Your task to perform on an android device: Open Youtube and go to "Your channel" Image 0: 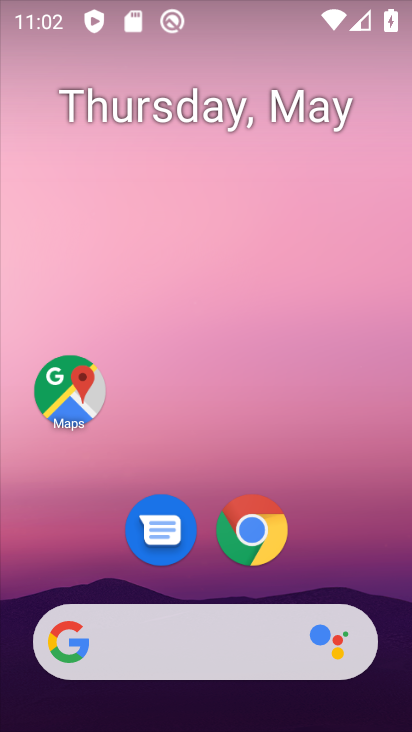
Step 0: drag from (310, 688) to (226, 187)
Your task to perform on an android device: Open Youtube and go to "Your channel" Image 1: 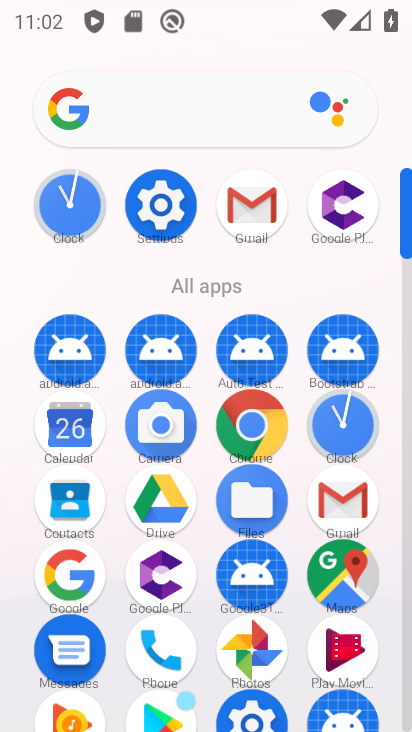
Step 1: drag from (302, 636) to (213, 280)
Your task to perform on an android device: Open Youtube and go to "Your channel" Image 2: 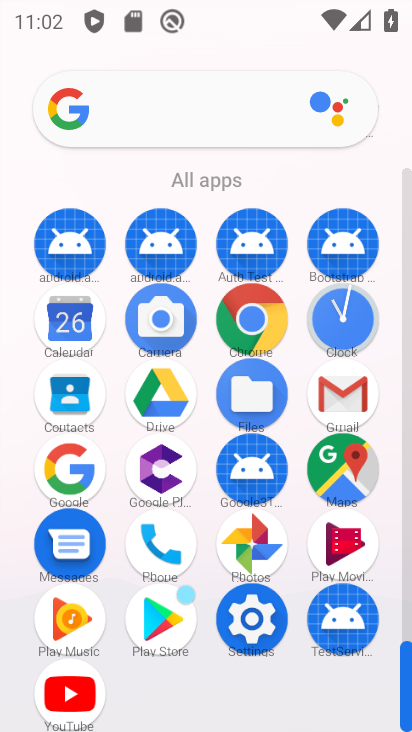
Step 2: click (68, 698)
Your task to perform on an android device: Open Youtube and go to "Your channel" Image 3: 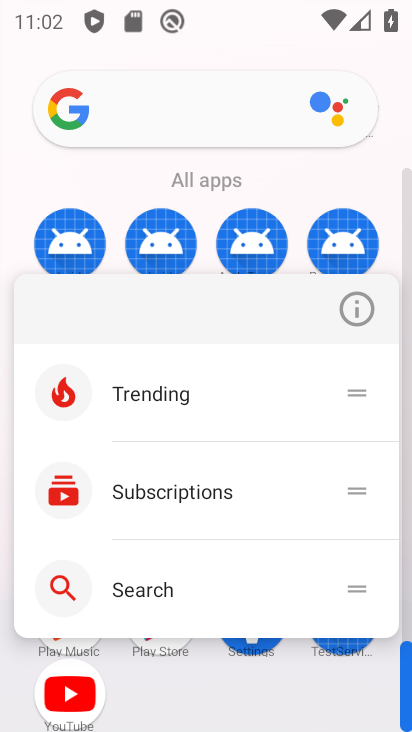
Step 3: click (52, 680)
Your task to perform on an android device: Open Youtube and go to "Your channel" Image 4: 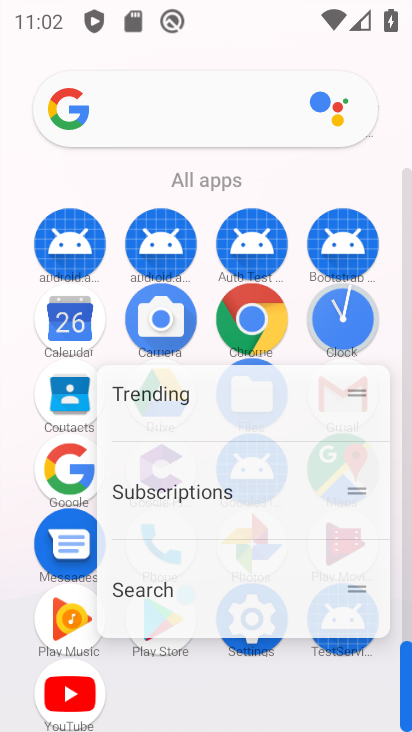
Step 4: click (53, 680)
Your task to perform on an android device: Open Youtube and go to "Your channel" Image 5: 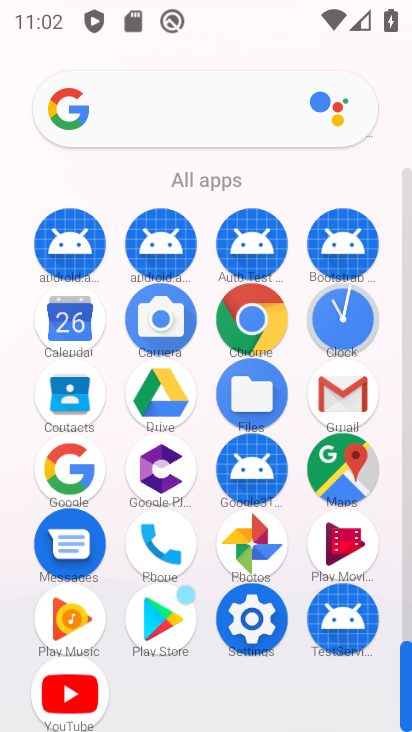
Step 5: click (57, 683)
Your task to perform on an android device: Open Youtube and go to "Your channel" Image 6: 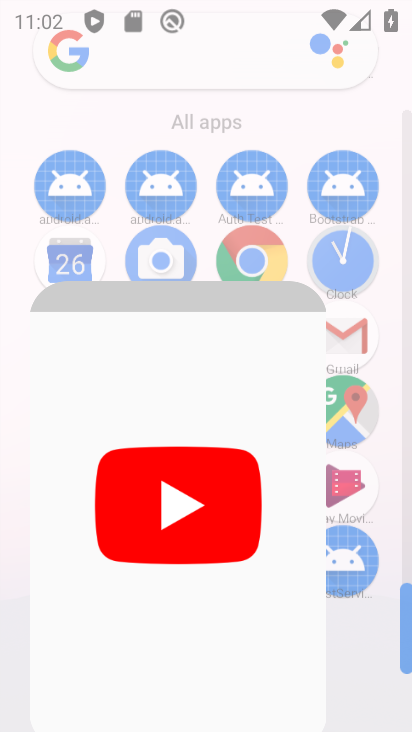
Step 6: click (59, 684)
Your task to perform on an android device: Open Youtube and go to "Your channel" Image 7: 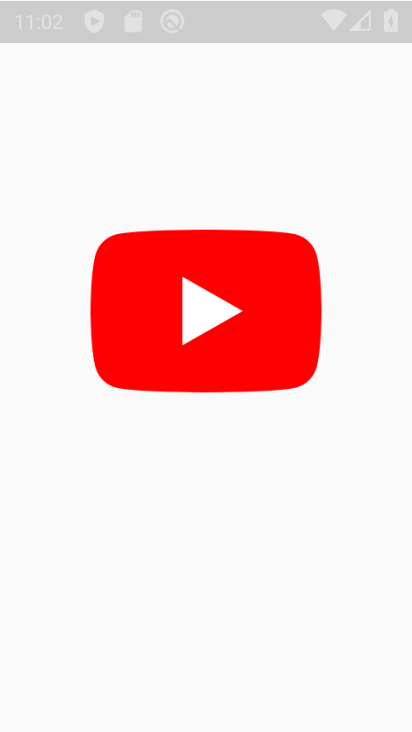
Step 7: click (64, 689)
Your task to perform on an android device: Open Youtube and go to "Your channel" Image 8: 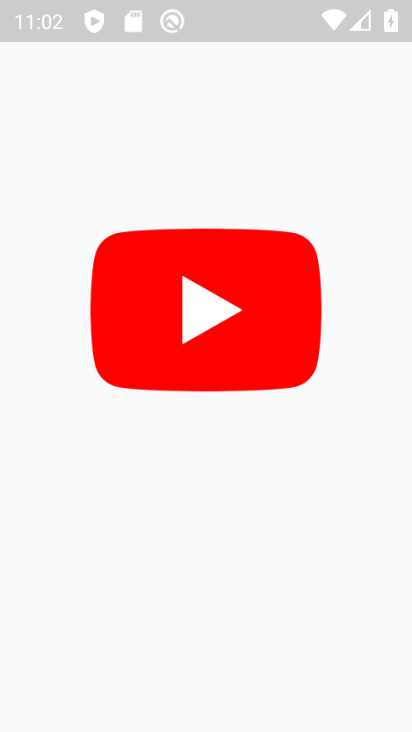
Step 8: click (65, 689)
Your task to perform on an android device: Open Youtube and go to "Your channel" Image 9: 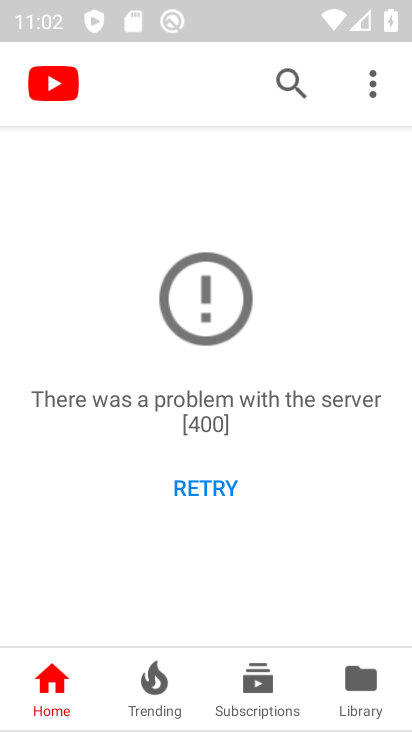
Step 9: drag from (223, 439) to (226, 208)
Your task to perform on an android device: Open Youtube and go to "Your channel" Image 10: 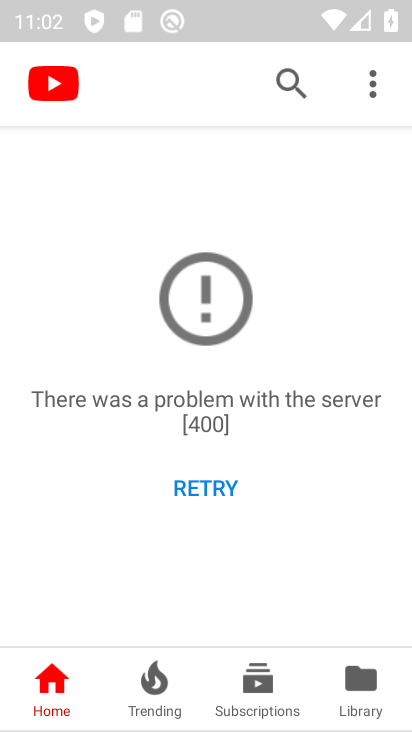
Step 10: drag from (230, 412) to (223, 177)
Your task to perform on an android device: Open Youtube and go to "Your channel" Image 11: 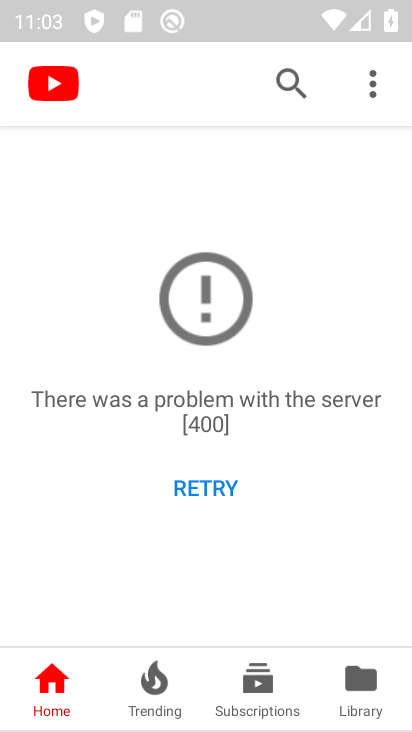
Step 11: drag from (234, 412) to (197, 239)
Your task to perform on an android device: Open Youtube and go to "Your channel" Image 12: 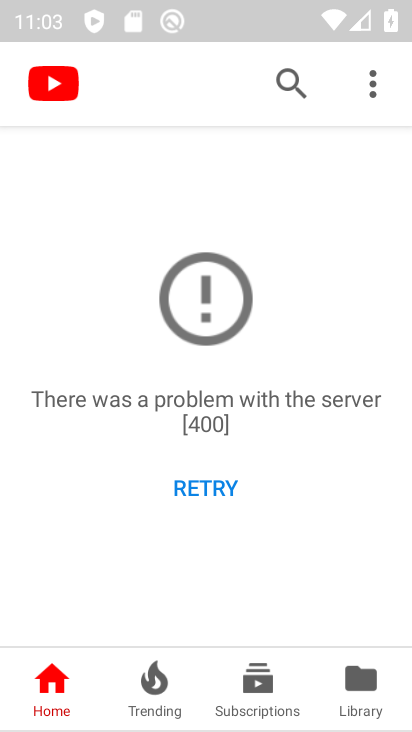
Step 12: drag from (172, 497) to (209, 239)
Your task to perform on an android device: Open Youtube and go to "Your channel" Image 13: 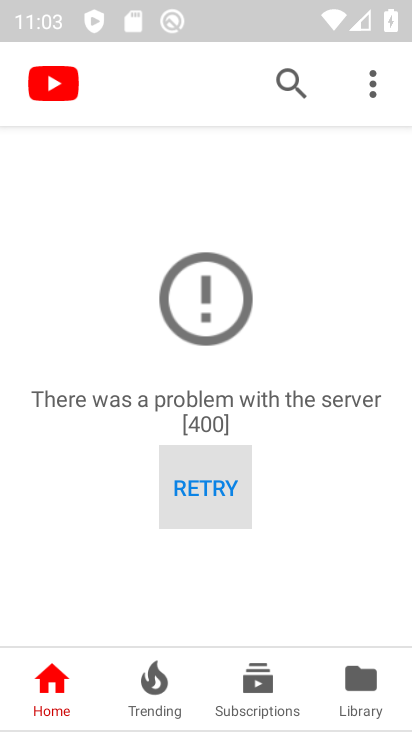
Step 13: drag from (179, 317) to (187, 180)
Your task to perform on an android device: Open Youtube and go to "Your channel" Image 14: 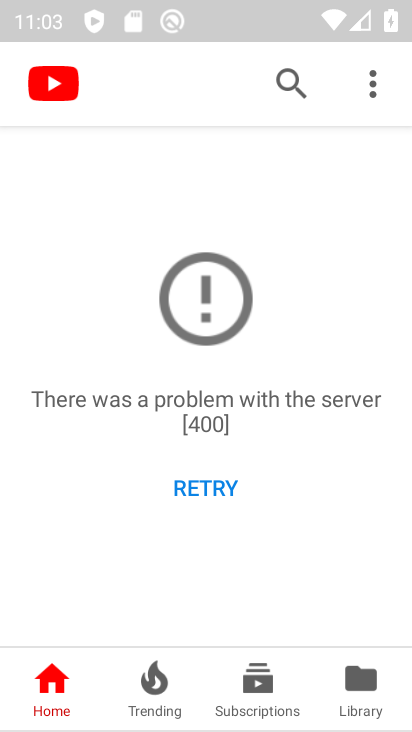
Step 14: drag from (224, 356) to (226, 100)
Your task to perform on an android device: Open Youtube and go to "Your channel" Image 15: 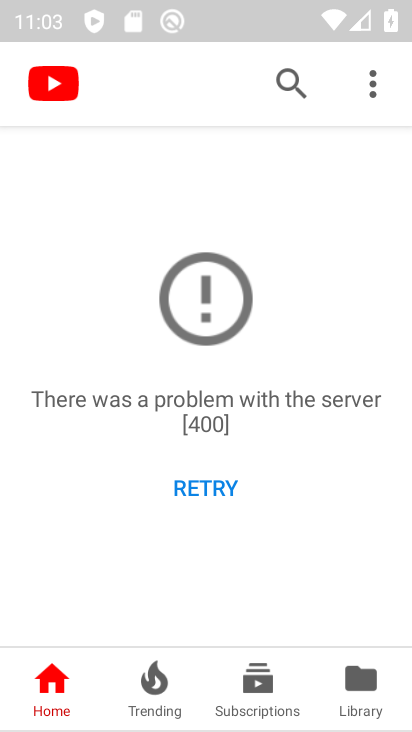
Step 15: drag from (231, 371) to (263, 71)
Your task to perform on an android device: Open Youtube and go to "Your channel" Image 16: 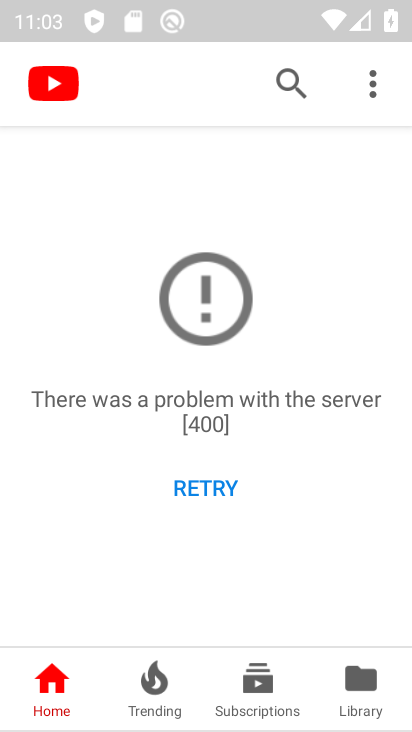
Step 16: drag from (226, 473) to (224, 171)
Your task to perform on an android device: Open Youtube and go to "Your channel" Image 17: 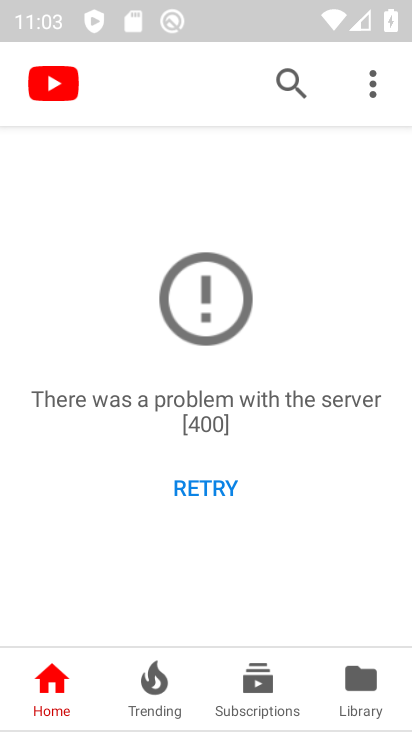
Step 17: drag from (200, 355) to (233, 237)
Your task to perform on an android device: Open Youtube and go to "Your channel" Image 18: 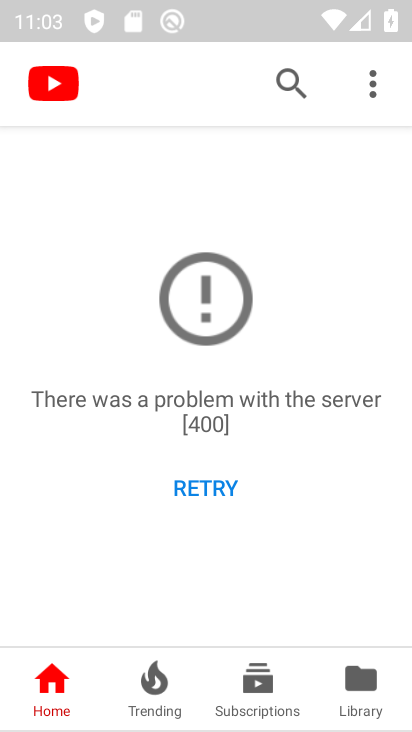
Step 18: drag from (193, 399) to (199, 151)
Your task to perform on an android device: Open Youtube and go to "Your channel" Image 19: 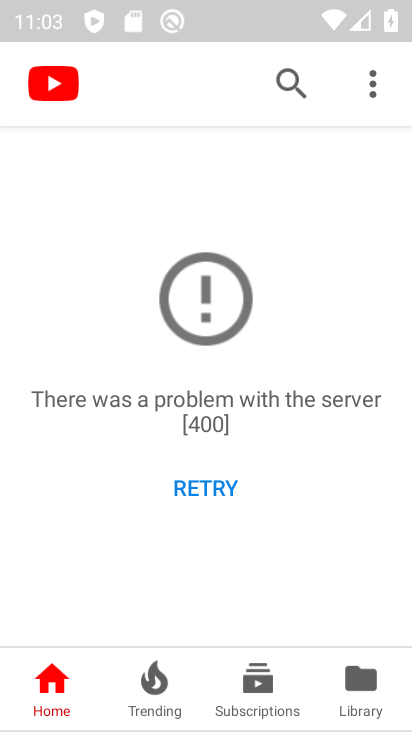
Step 19: drag from (197, 310) to (180, 208)
Your task to perform on an android device: Open Youtube and go to "Your channel" Image 20: 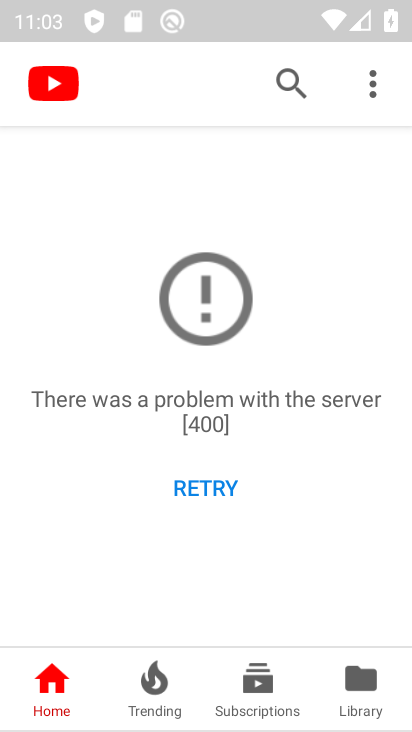
Step 20: drag from (181, 358) to (170, 198)
Your task to perform on an android device: Open Youtube and go to "Your channel" Image 21: 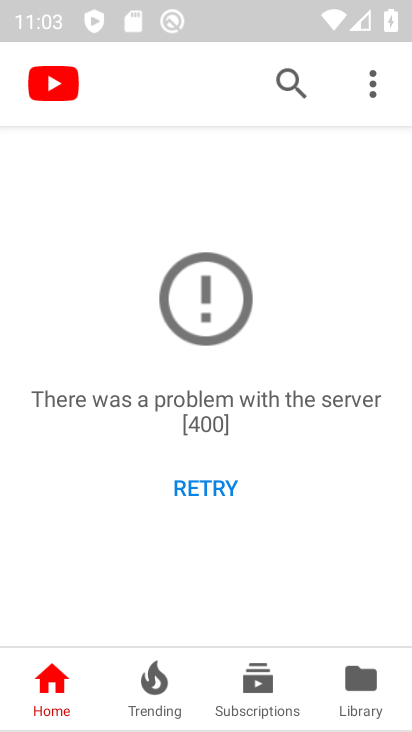
Step 21: drag from (207, 313) to (197, 228)
Your task to perform on an android device: Open Youtube and go to "Your channel" Image 22: 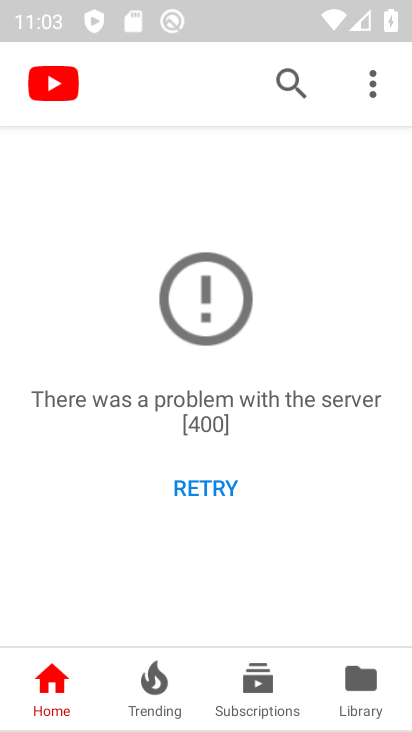
Step 22: drag from (210, 349) to (210, 216)
Your task to perform on an android device: Open Youtube and go to "Your channel" Image 23: 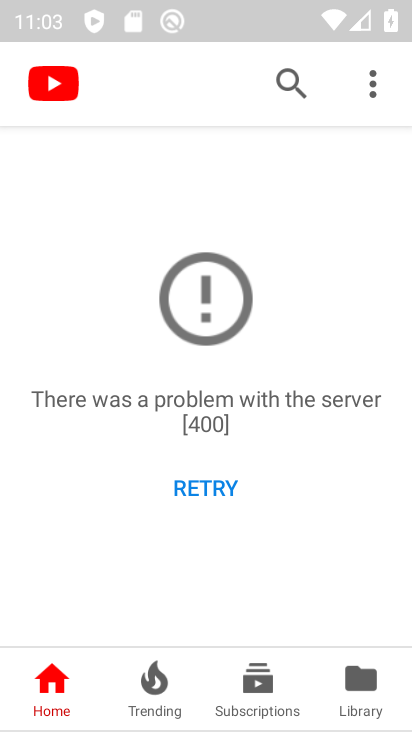
Step 23: drag from (213, 401) to (205, 249)
Your task to perform on an android device: Open Youtube and go to "Your channel" Image 24: 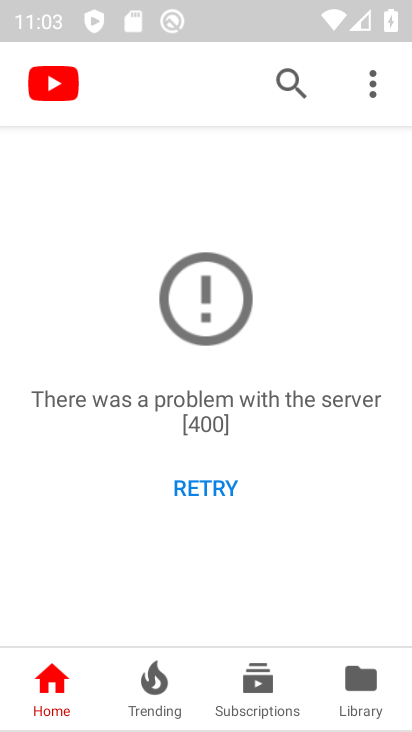
Step 24: drag from (211, 442) to (166, 233)
Your task to perform on an android device: Open Youtube and go to "Your channel" Image 25: 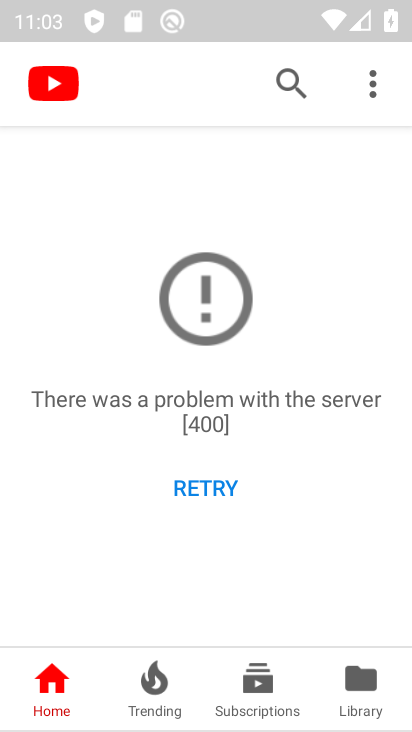
Step 25: drag from (164, 492) to (161, 244)
Your task to perform on an android device: Open Youtube and go to "Your channel" Image 26: 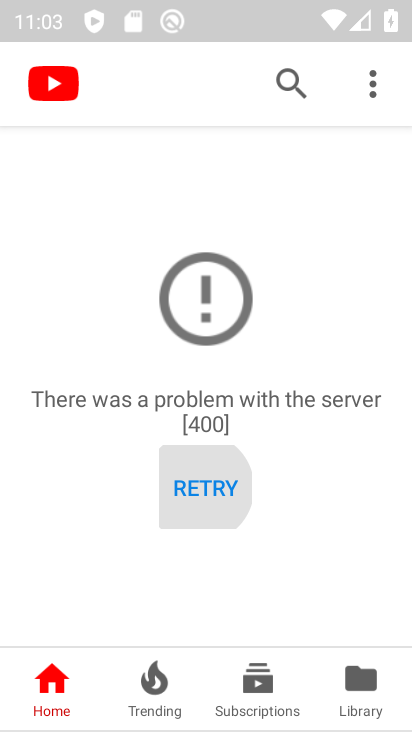
Step 26: drag from (171, 278) to (171, 181)
Your task to perform on an android device: Open Youtube and go to "Your channel" Image 27: 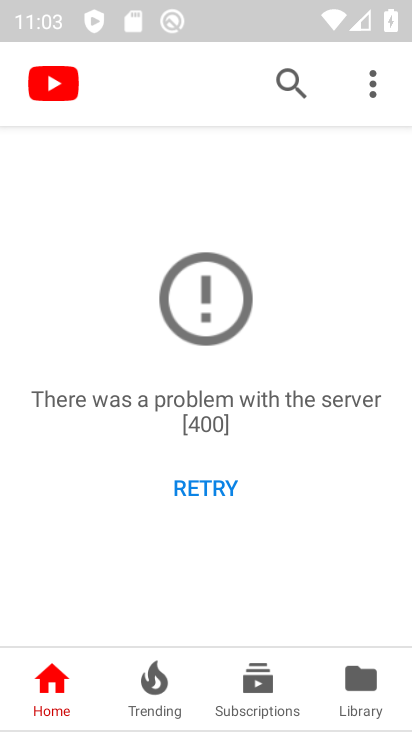
Step 27: drag from (182, 235) to (184, 145)
Your task to perform on an android device: Open Youtube and go to "Your channel" Image 28: 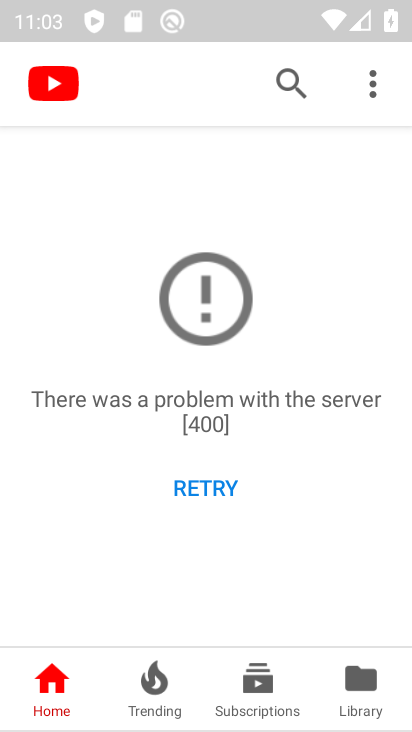
Step 28: click (255, 177)
Your task to perform on an android device: Open Youtube and go to "Your channel" Image 29: 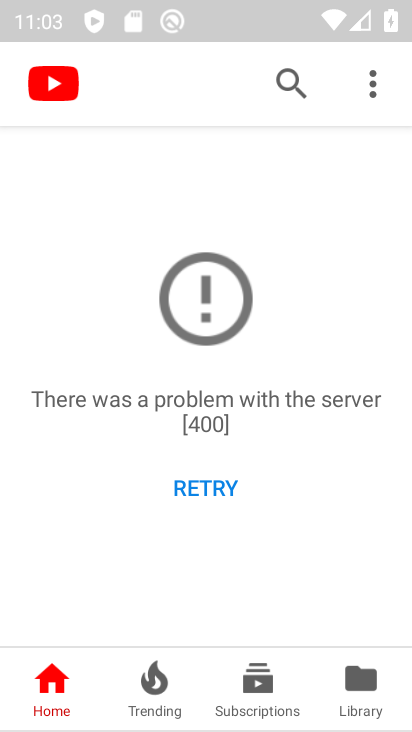
Step 29: task complete